Your task to perform on an android device: Look up the best rated gaming chair on Target. Image 0: 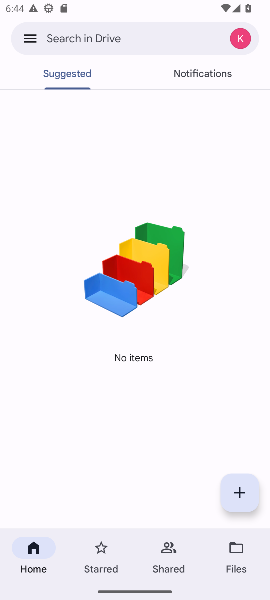
Step 0: press home button
Your task to perform on an android device: Look up the best rated gaming chair on Target. Image 1: 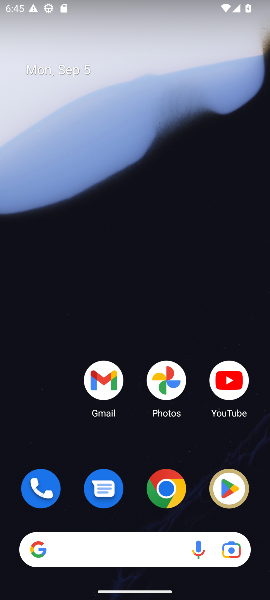
Step 1: click (178, 487)
Your task to perform on an android device: Look up the best rated gaming chair on Target. Image 2: 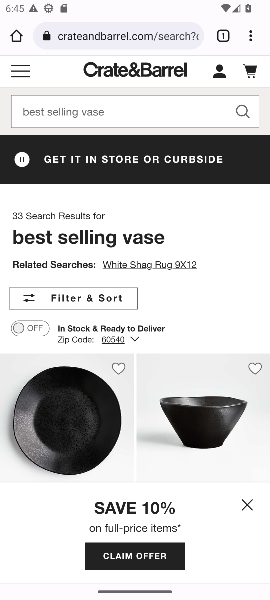
Step 2: click (218, 36)
Your task to perform on an android device: Look up the best rated gaming chair on Target. Image 3: 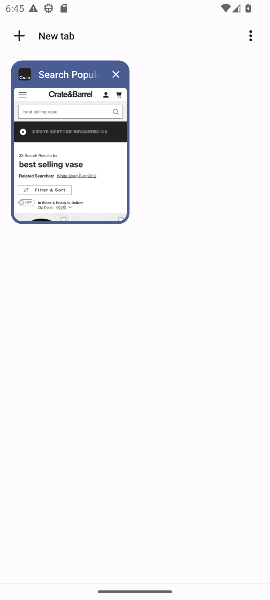
Step 3: click (116, 75)
Your task to perform on an android device: Look up the best rated gaming chair on Target. Image 4: 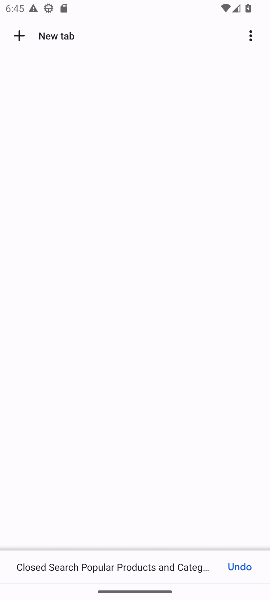
Step 4: click (12, 34)
Your task to perform on an android device: Look up the best rated gaming chair on Target. Image 5: 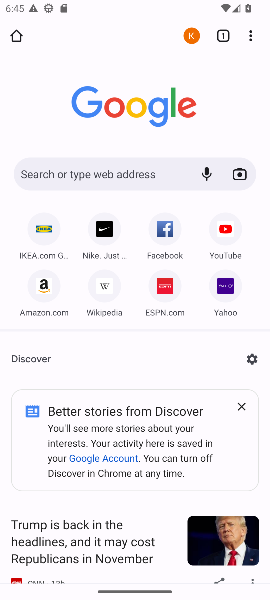
Step 5: click (99, 181)
Your task to perform on an android device: Look up the best rated gaming chair on Target. Image 6: 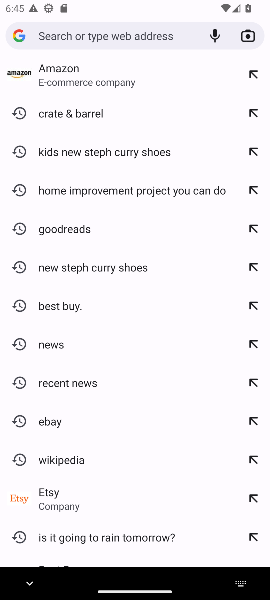
Step 6: type "target"
Your task to perform on an android device: Look up the best rated gaming chair on Target. Image 7: 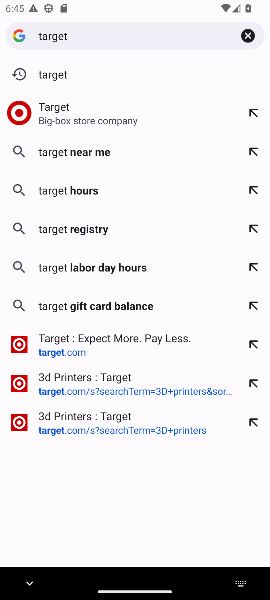
Step 7: press enter
Your task to perform on an android device: Look up the best rated gaming chair on Target. Image 8: 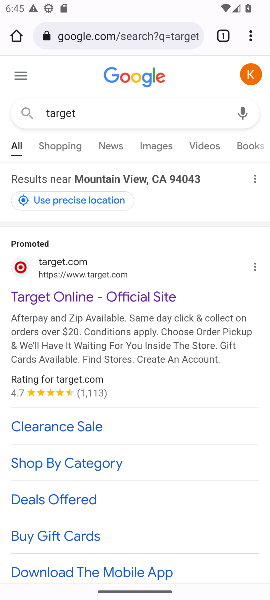
Step 8: click (67, 300)
Your task to perform on an android device: Look up the best rated gaming chair on Target. Image 9: 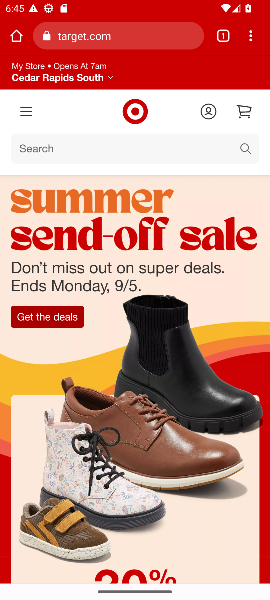
Step 9: click (149, 147)
Your task to perform on an android device: Look up the best rated gaming chair on Target. Image 10: 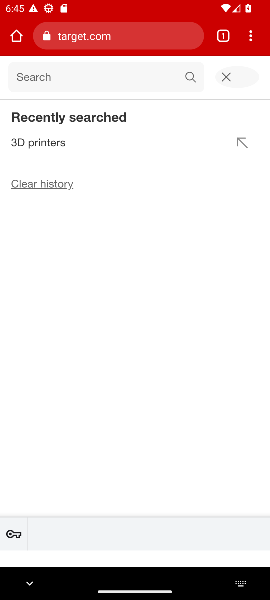
Step 10: type "gaming chair"
Your task to perform on an android device: Look up the best rated gaming chair on Target. Image 11: 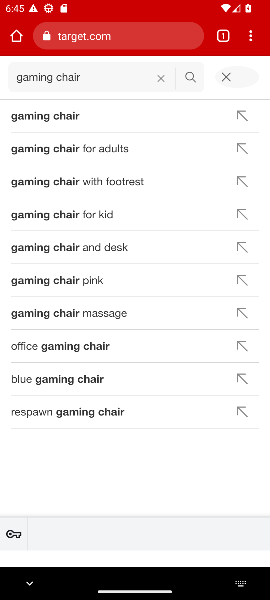
Step 11: press enter
Your task to perform on an android device: Look up the best rated gaming chair on Target. Image 12: 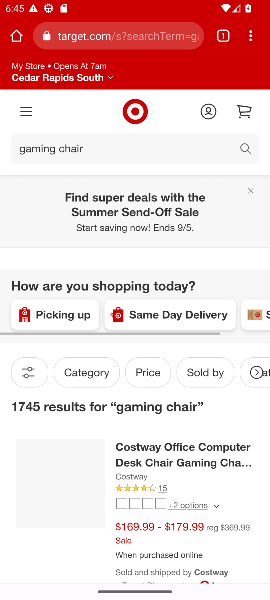
Step 12: click (27, 375)
Your task to perform on an android device: Look up the best rated gaming chair on Target. Image 13: 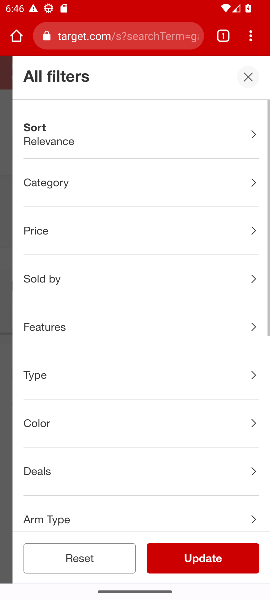
Step 13: click (164, 145)
Your task to perform on an android device: Look up the best rated gaming chair on Target. Image 14: 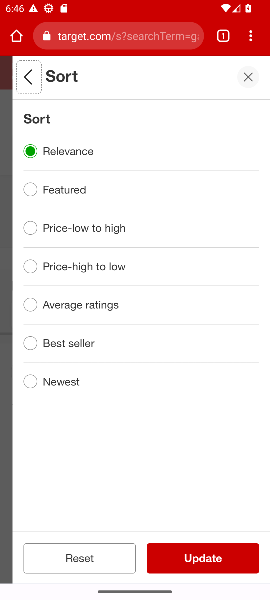
Step 14: click (170, 142)
Your task to perform on an android device: Look up the best rated gaming chair on Target. Image 15: 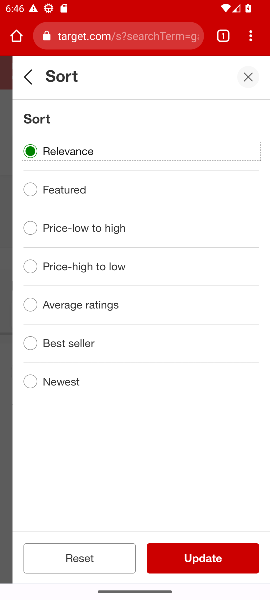
Step 15: click (28, 75)
Your task to perform on an android device: Look up the best rated gaming chair on Target. Image 16: 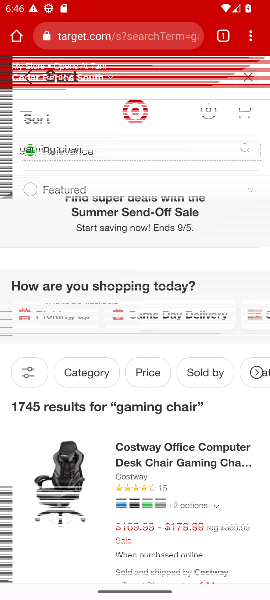
Step 16: drag from (126, 295) to (133, 154)
Your task to perform on an android device: Look up the best rated gaming chair on Target. Image 17: 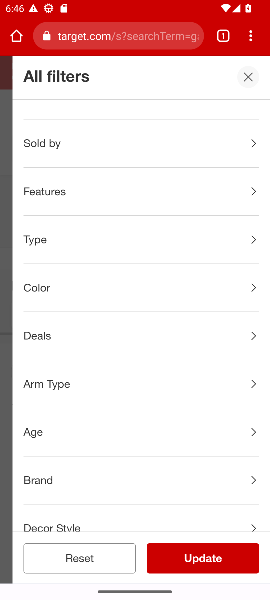
Step 17: drag from (127, 391) to (130, 154)
Your task to perform on an android device: Look up the best rated gaming chair on Target. Image 18: 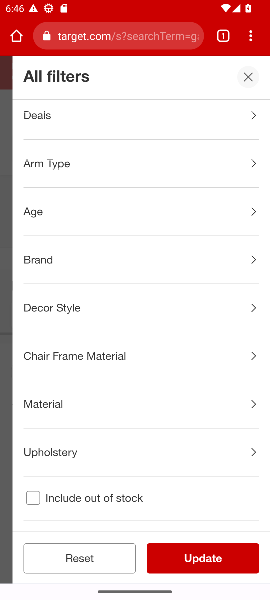
Step 18: drag from (148, 391) to (149, 439)
Your task to perform on an android device: Look up the best rated gaming chair on Target. Image 19: 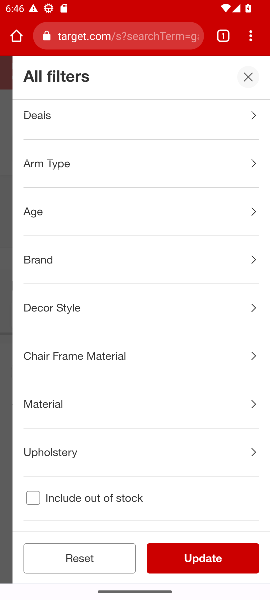
Step 19: drag from (168, 182) to (164, 406)
Your task to perform on an android device: Look up the best rated gaming chair on Target. Image 20: 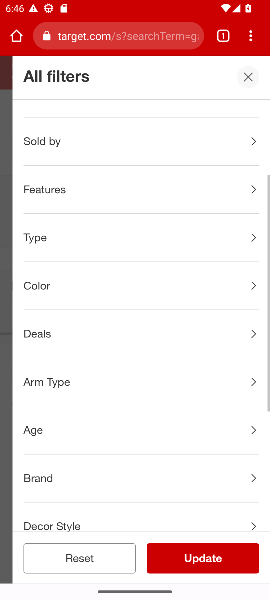
Step 20: drag from (146, 187) to (151, 400)
Your task to perform on an android device: Look up the best rated gaming chair on Target. Image 21: 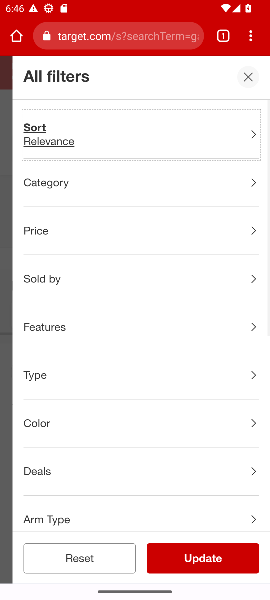
Step 21: drag from (151, 248) to (162, 365)
Your task to perform on an android device: Look up the best rated gaming chair on Target. Image 22: 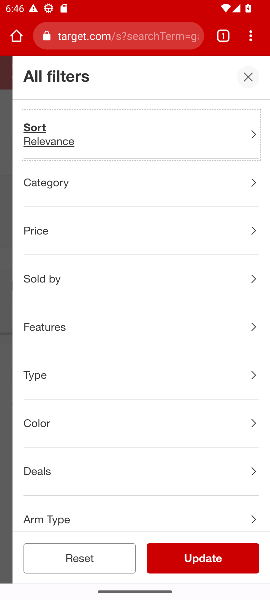
Step 22: click (143, 145)
Your task to perform on an android device: Look up the best rated gaming chair on Target. Image 23: 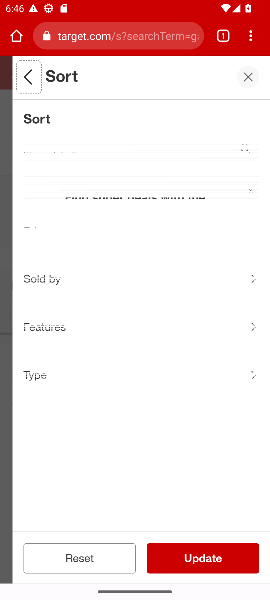
Step 23: drag from (82, 332) to (84, 284)
Your task to perform on an android device: Look up the best rated gaming chair on Target. Image 24: 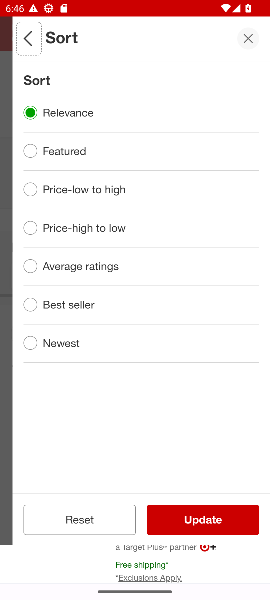
Step 24: click (101, 271)
Your task to perform on an android device: Look up the best rated gaming chair on Target. Image 25: 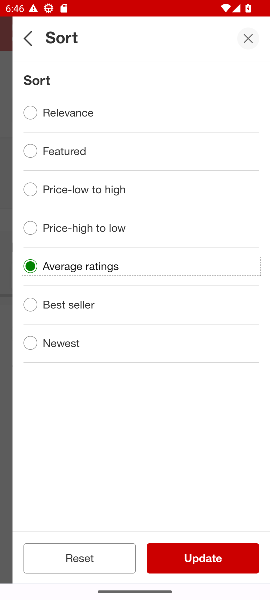
Step 25: click (225, 558)
Your task to perform on an android device: Look up the best rated gaming chair on Target. Image 26: 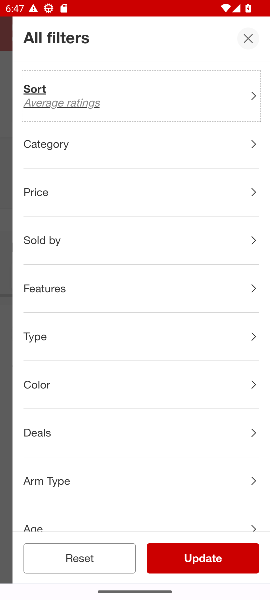
Step 26: task complete